Your task to perform on an android device: open app "Messenger Lite" (install if not already installed) Image 0: 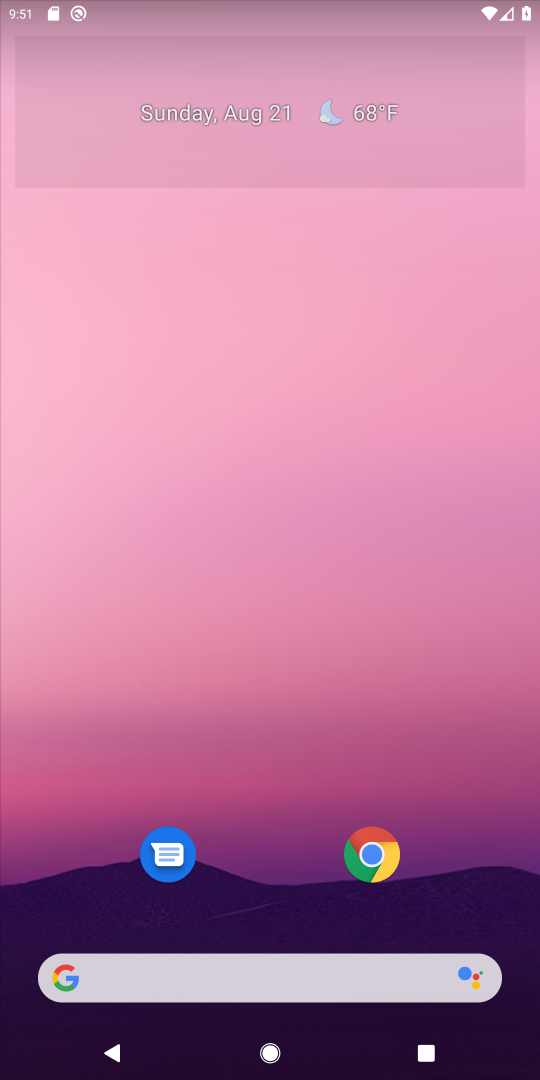
Step 0: drag from (99, 290) to (71, 21)
Your task to perform on an android device: open app "Messenger Lite" (install if not already installed) Image 1: 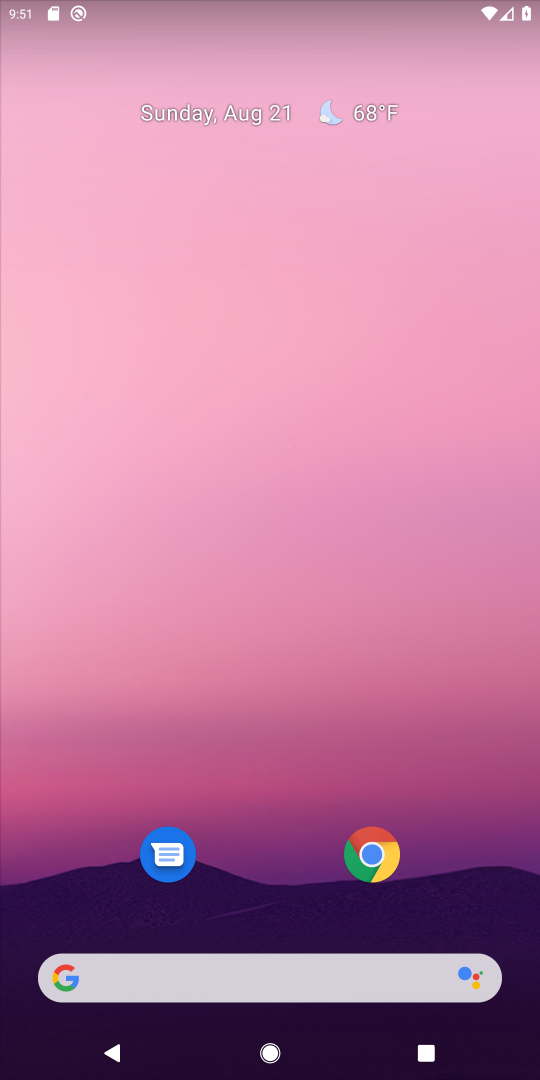
Step 1: task complete